Your task to perform on an android device: clear history in the chrome app Image 0: 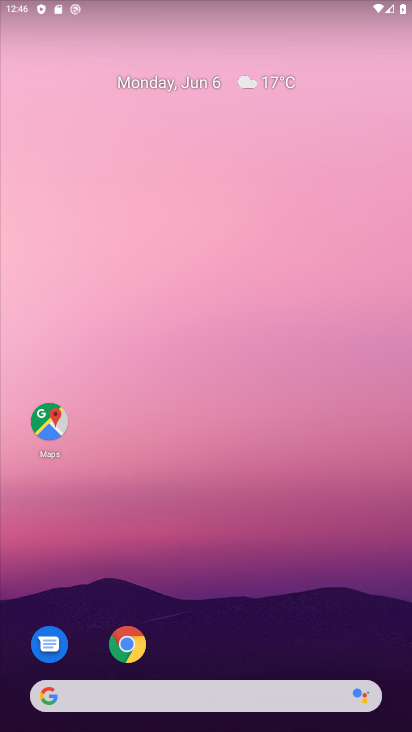
Step 0: drag from (215, 212) to (274, 135)
Your task to perform on an android device: clear history in the chrome app Image 1: 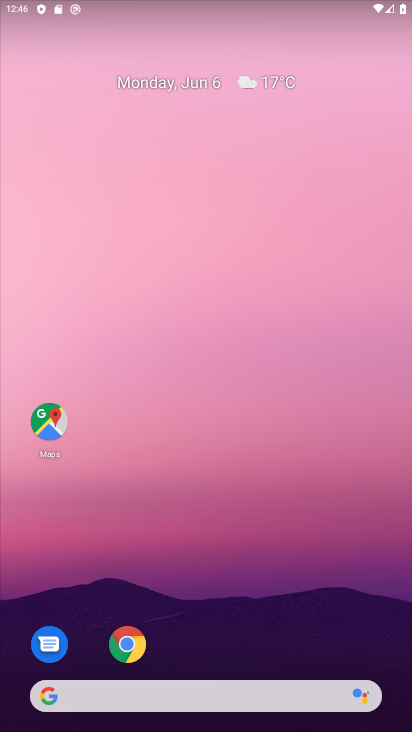
Step 1: drag from (303, 579) to (259, 77)
Your task to perform on an android device: clear history in the chrome app Image 2: 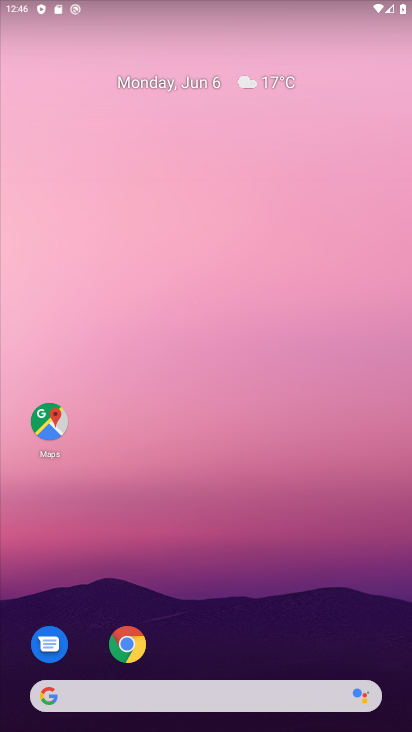
Step 2: drag from (220, 534) to (203, 7)
Your task to perform on an android device: clear history in the chrome app Image 3: 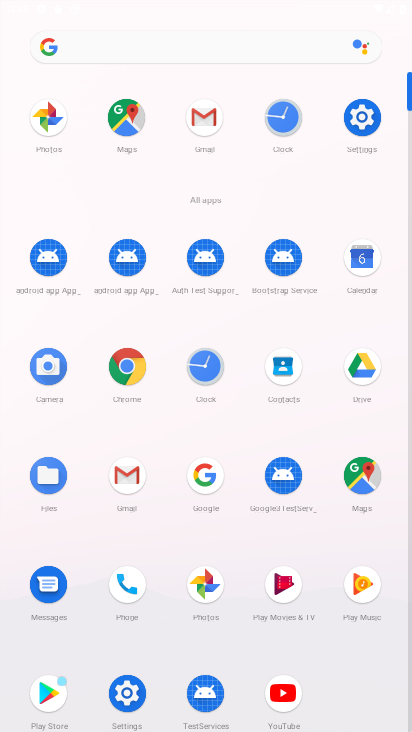
Step 3: drag from (240, 99) to (203, 64)
Your task to perform on an android device: clear history in the chrome app Image 4: 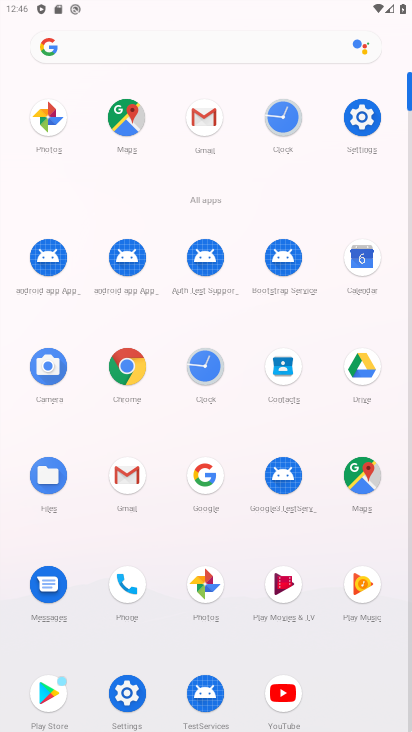
Step 4: click (131, 370)
Your task to perform on an android device: clear history in the chrome app Image 5: 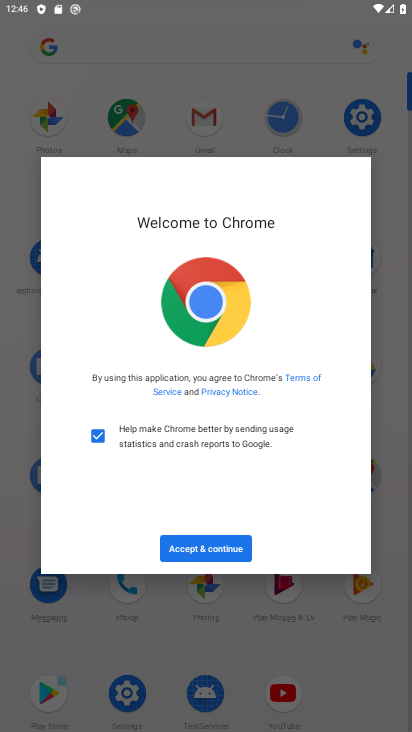
Step 5: click (181, 544)
Your task to perform on an android device: clear history in the chrome app Image 6: 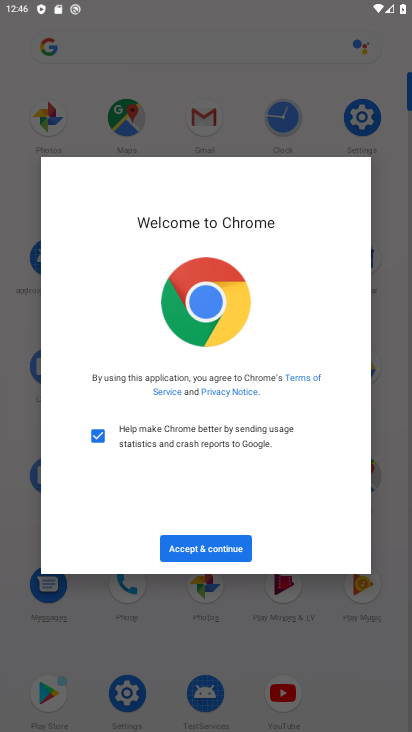
Step 6: click (182, 544)
Your task to perform on an android device: clear history in the chrome app Image 7: 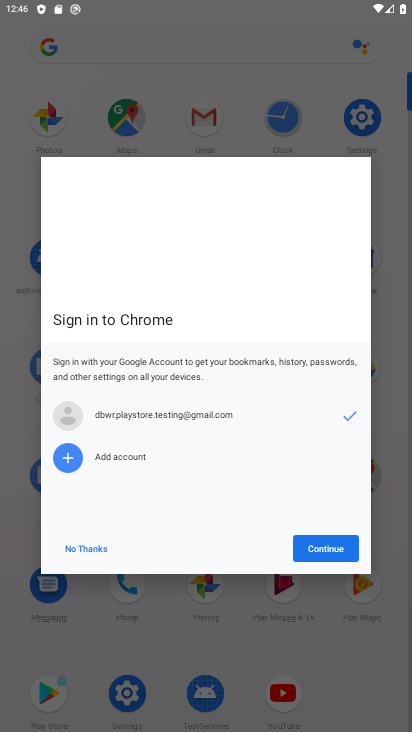
Step 7: click (310, 541)
Your task to perform on an android device: clear history in the chrome app Image 8: 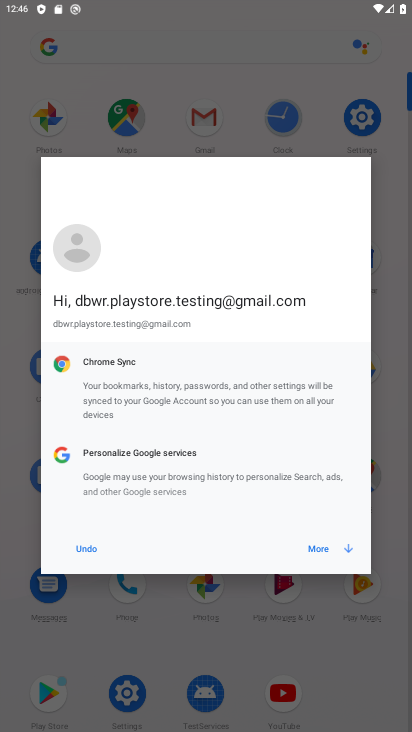
Step 8: click (331, 540)
Your task to perform on an android device: clear history in the chrome app Image 9: 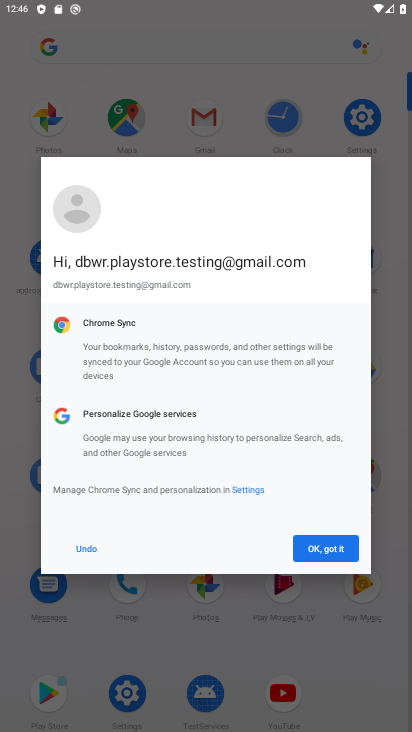
Step 9: click (325, 545)
Your task to perform on an android device: clear history in the chrome app Image 10: 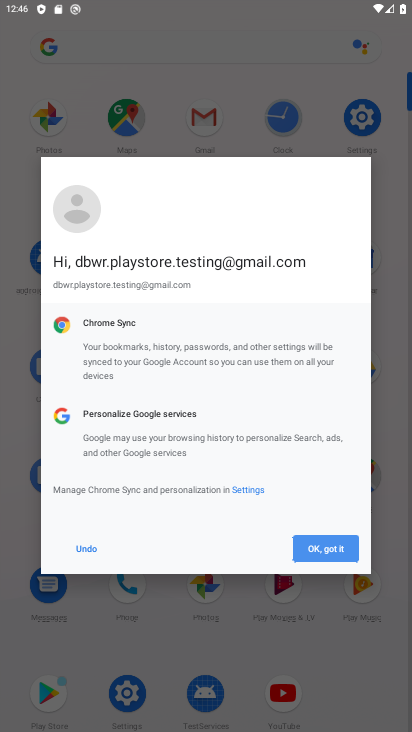
Step 10: click (325, 545)
Your task to perform on an android device: clear history in the chrome app Image 11: 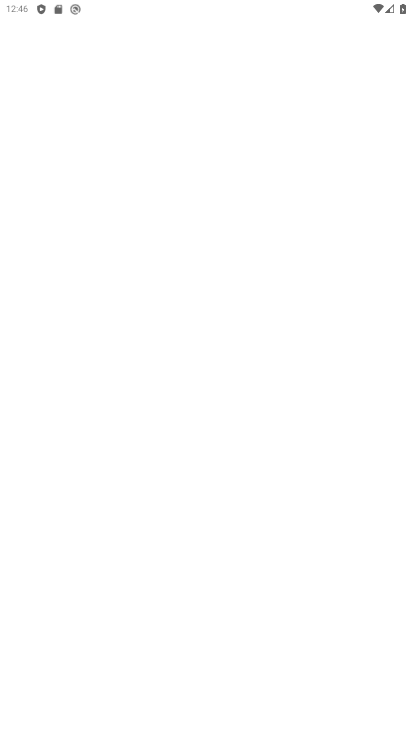
Step 11: click (325, 545)
Your task to perform on an android device: clear history in the chrome app Image 12: 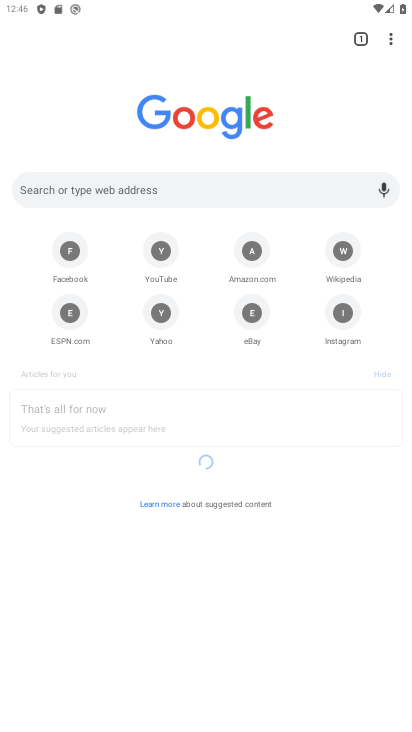
Step 12: drag from (391, 48) to (238, 216)
Your task to perform on an android device: clear history in the chrome app Image 13: 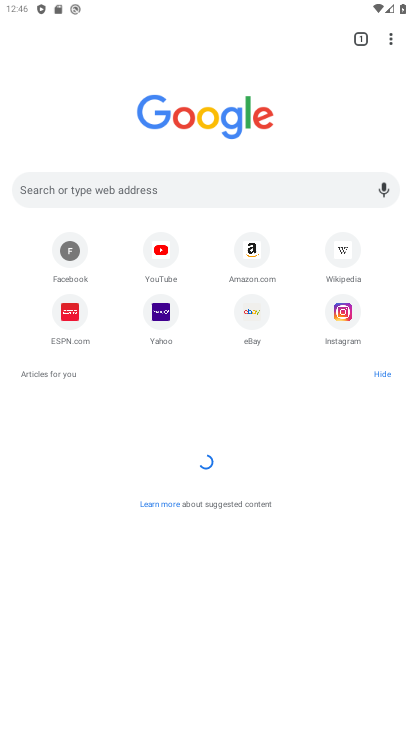
Step 13: click (238, 216)
Your task to perform on an android device: clear history in the chrome app Image 14: 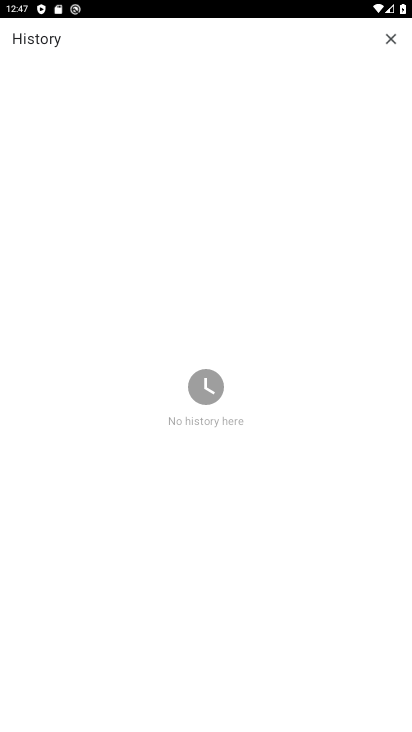
Step 14: task complete